Your task to perform on an android device: Show me popular games on the Play Store Image 0: 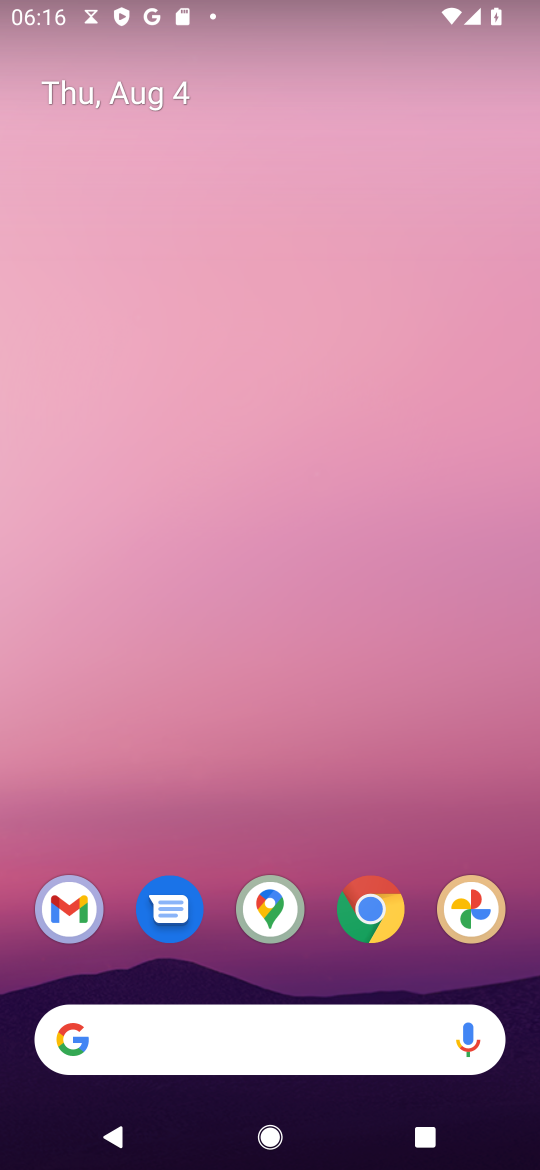
Step 0: drag from (309, 841) to (379, 231)
Your task to perform on an android device: Show me popular games on the Play Store Image 1: 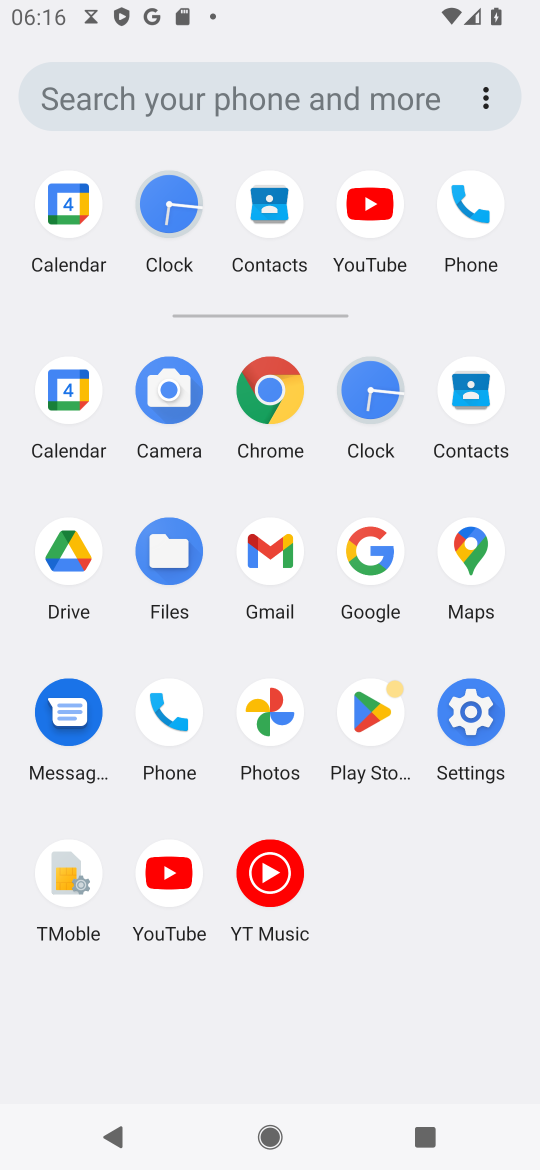
Step 1: click (374, 716)
Your task to perform on an android device: Show me popular games on the Play Store Image 2: 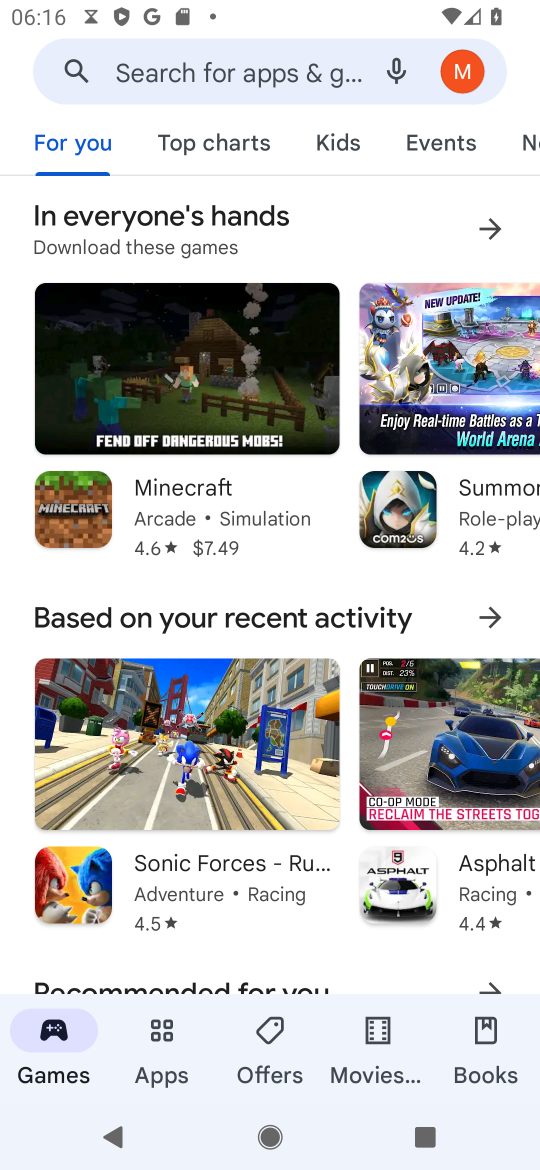
Step 2: task complete